Your task to perform on an android device: turn off data saver in the chrome app Image 0: 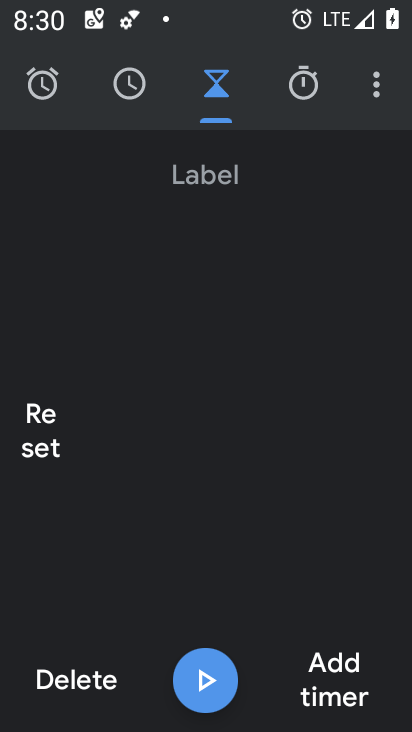
Step 0: press home button
Your task to perform on an android device: turn off data saver in the chrome app Image 1: 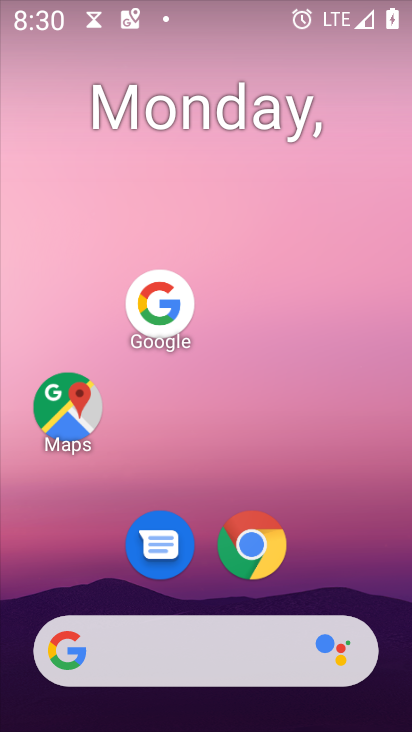
Step 1: drag from (163, 657) to (310, 84)
Your task to perform on an android device: turn off data saver in the chrome app Image 2: 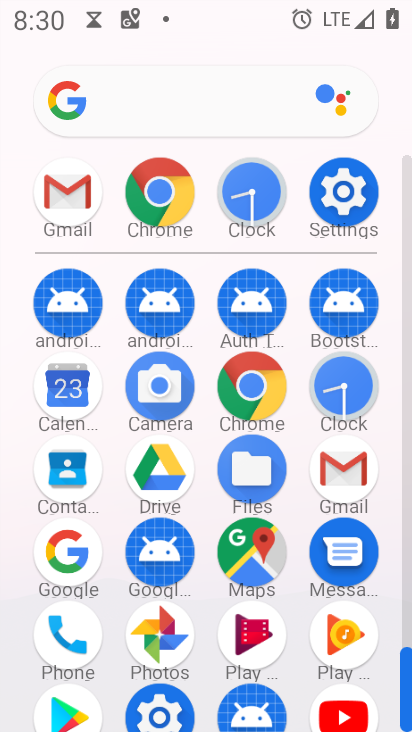
Step 2: click (163, 203)
Your task to perform on an android device: turn off data saver in the chrome app Image 3: 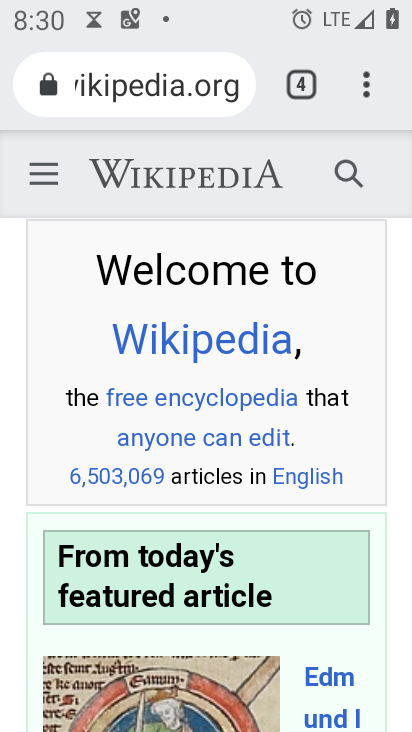
Step 3: drag from (359, 99) to (202, 597)
Your task to perform on an android device: turn off data saver in the chrome app Image 4: 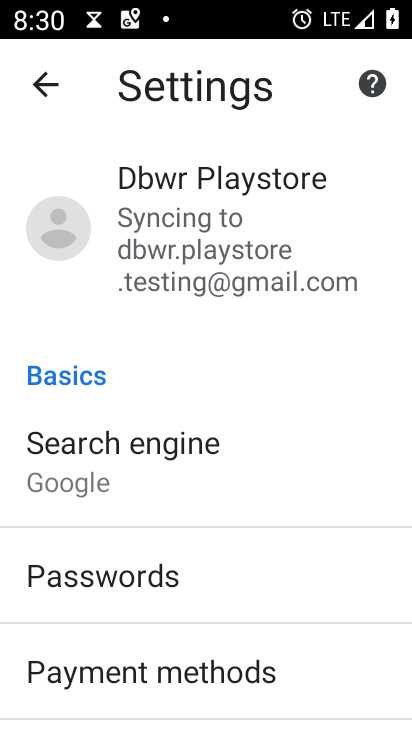
Step 4: drag from (197, 644) to (334, 105)
Your task to perform on an android device: turn off data saver in the chrome app Image 5: 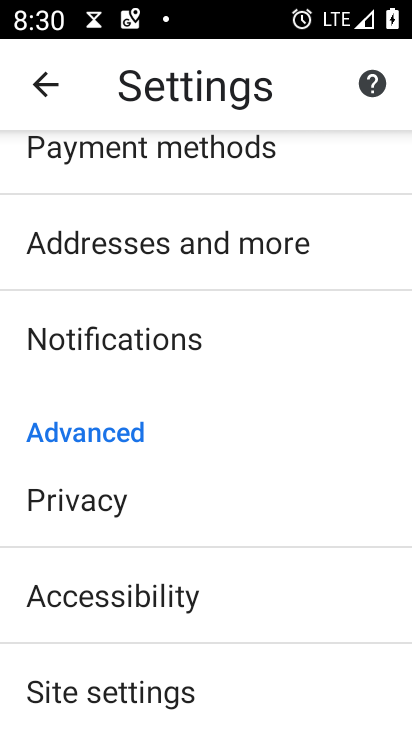
Step 5: drag from (159, 656) to (253, 259)
Your task to perform on an android device: turn off data saver in the chrome app Image 6: 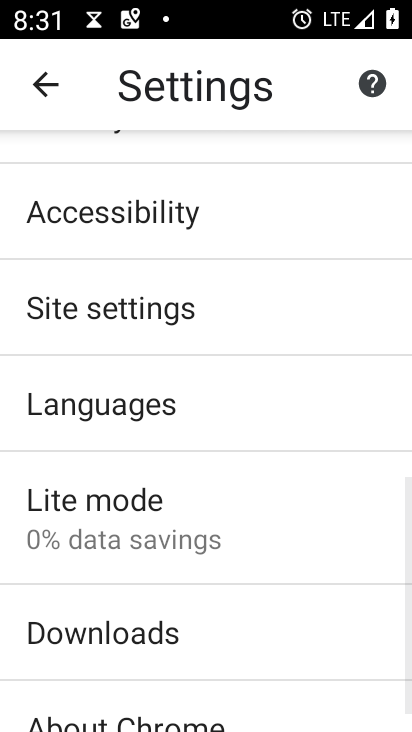
Step 6: click (135, 543)
Your task to perform on an android device: turn off data saver in the chrome app Image 7: 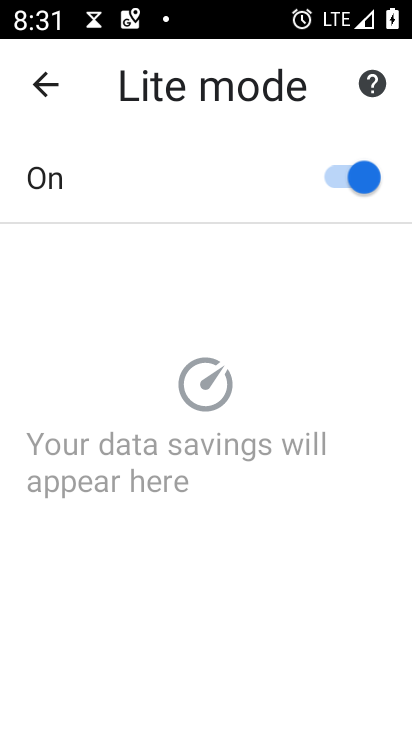
Step 7: click (341, 176)
Your task to perform on an android device: turn off data saver in the chrome app Image 8: 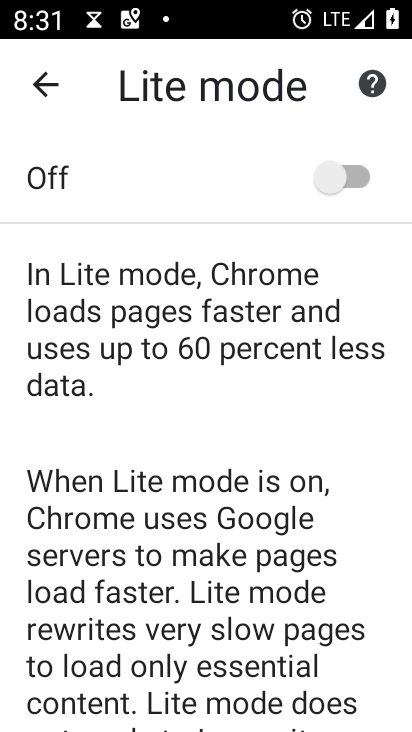
Step 8: task complete